Your task to perform on an android device: open app "PlayWell" (install if not already installed) Image 0: 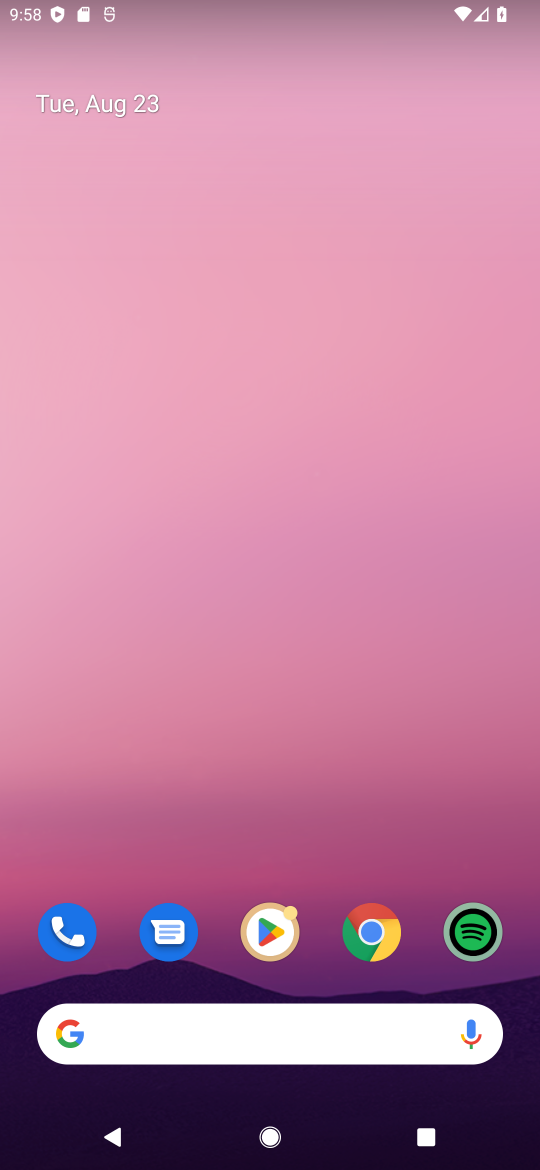
Step 0: click (273, 933)
Your task to perform on an android device: open app "PlayWell" (install if not already installed) Image 1: 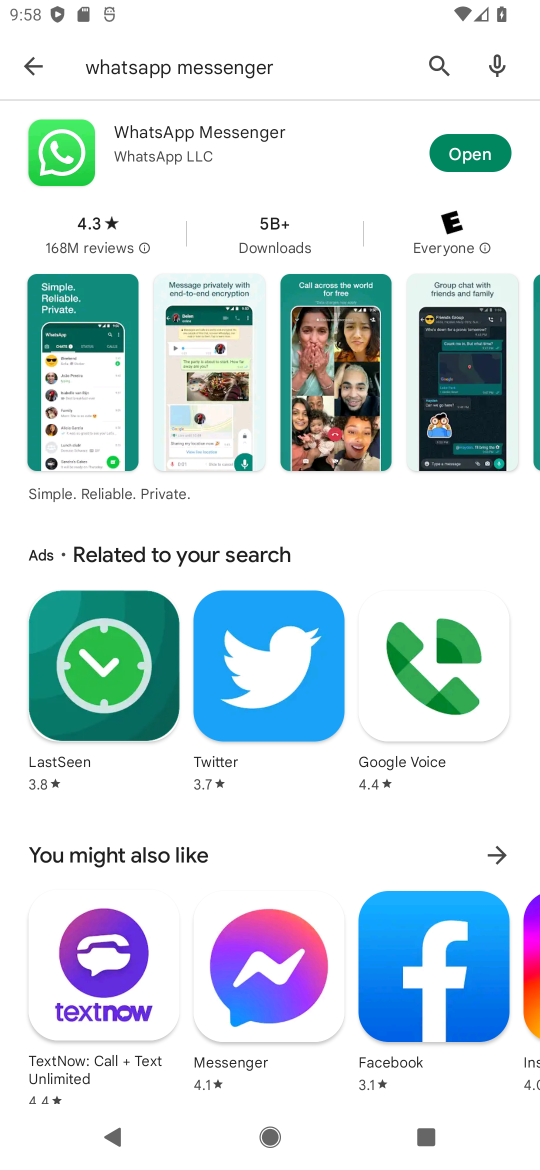
Step 1: click (419, 61)
Your task to perform on an android device: open app "PlayWell" (install if not already installed) Image 2: 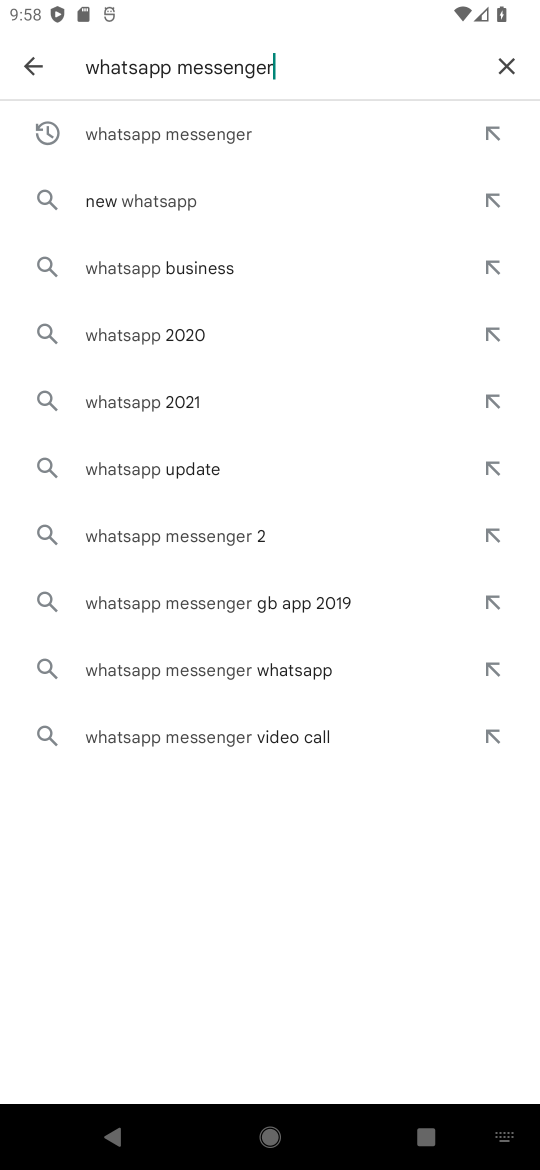
Step 2: click (519, 61)
Your task to perform on an android device: open app "PlayWell" (install if not already installed) Image 3: 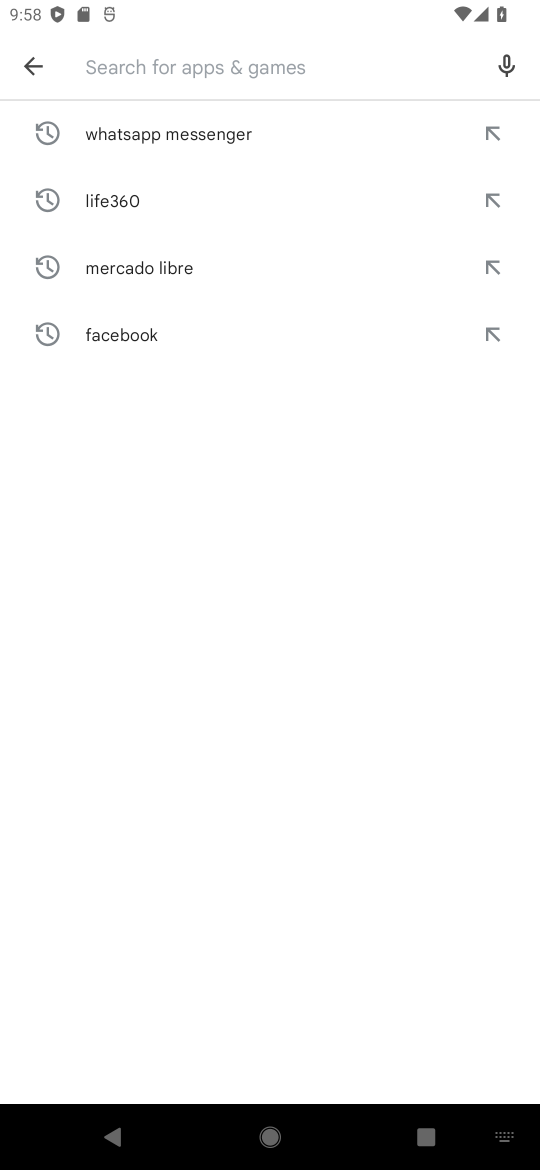
Step 3: click (83, 65)
Your task to perform on an android device: open app "PlayWell" (install if not already installed) Image 4: 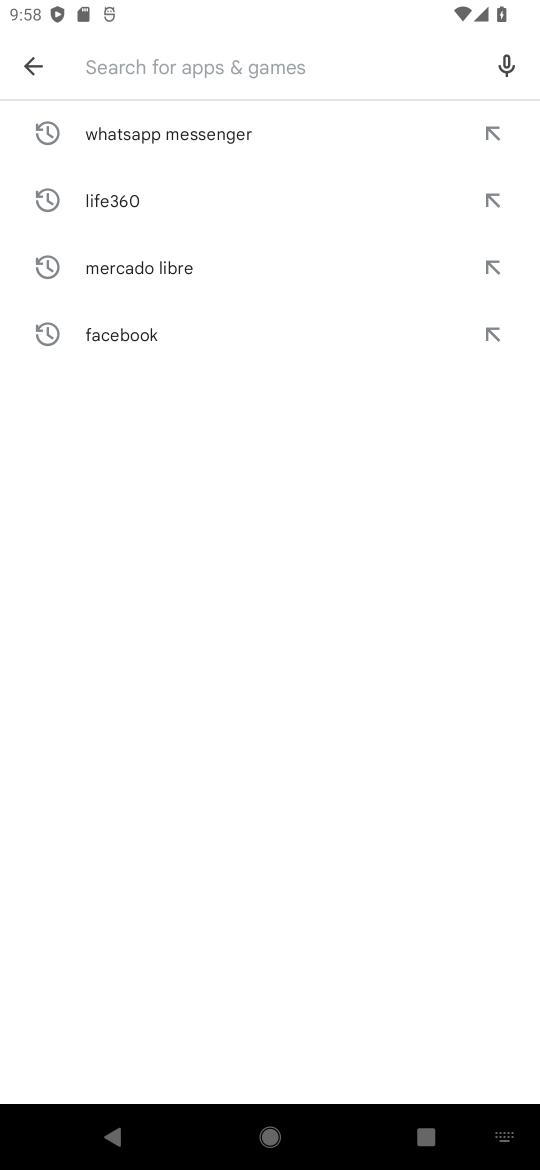
Step 4: type "PlayWell"
Your task to perform on an android device: open app "PlayWell" (install if not already installed) Image 5: 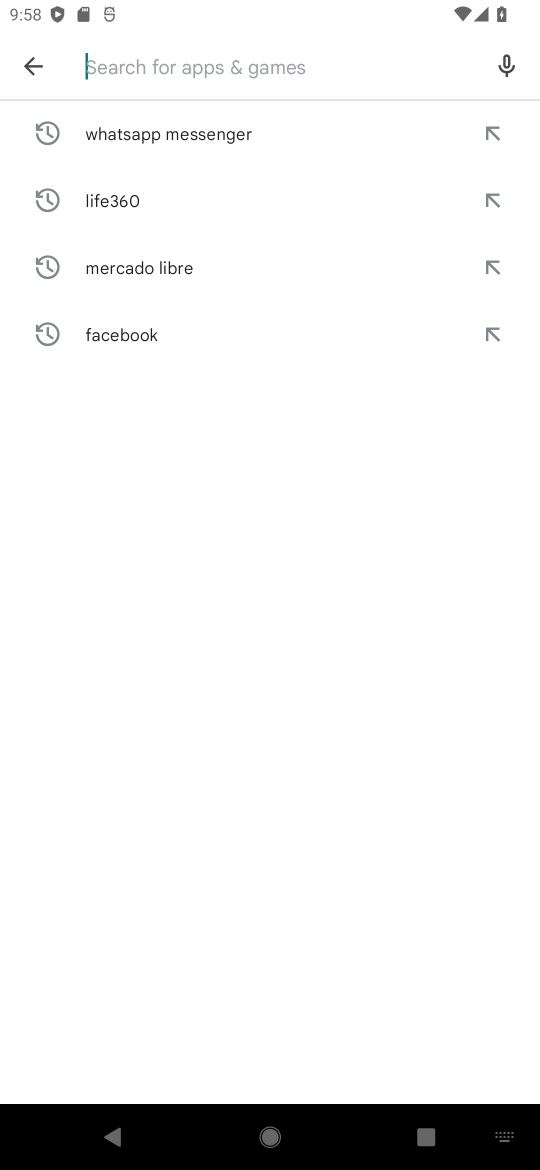
Step 5: click (299, 779)
Your task to perform on an android device: open app "PlayWell" (install if not already installed) Image 6: 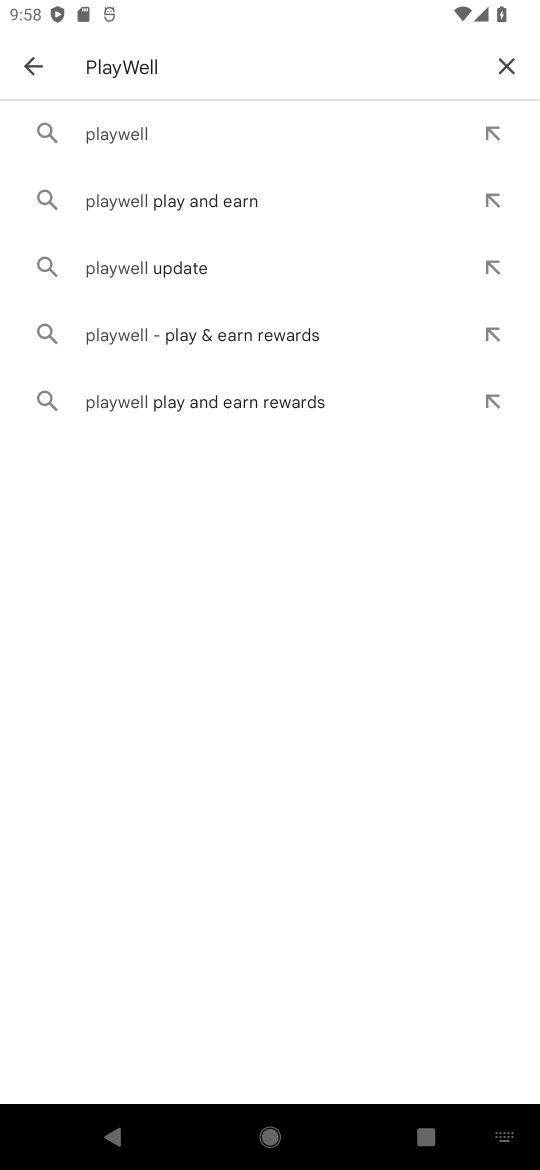
Step 6: click (200, 128)
Your task to perform on an android device: open app "PlayWell" (install if not already installed) Image 7: 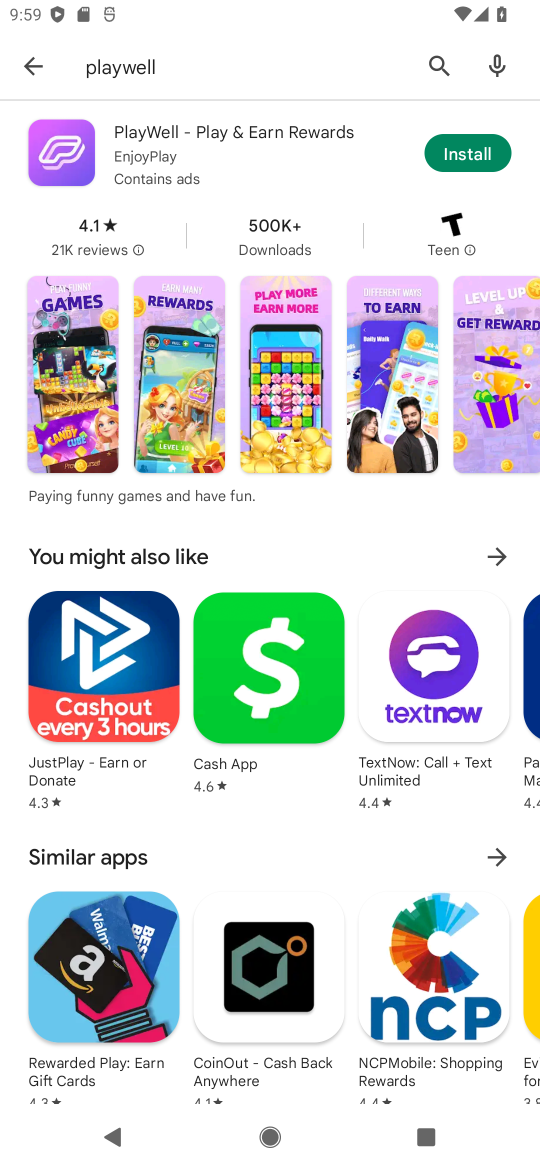
Step 7: click (479, 167)
Your task to perform on an android device: open app "PlayWell" (install if not already installed) Image 8: 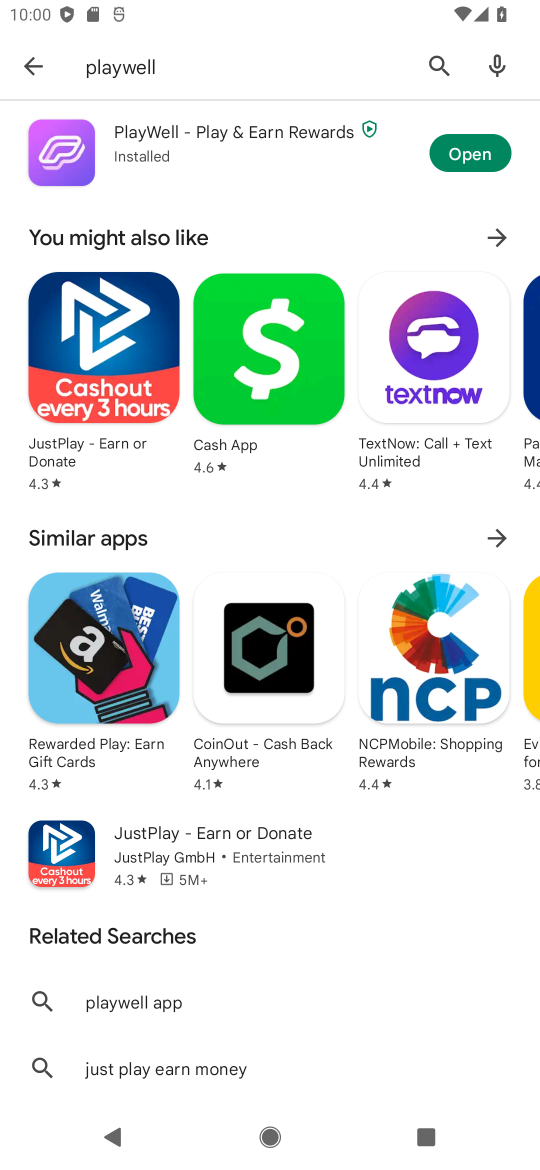
Step 8: click (484, 157)
Your task to perform on an android device: open app "PlayWell" (install if not already installed) Image 9: 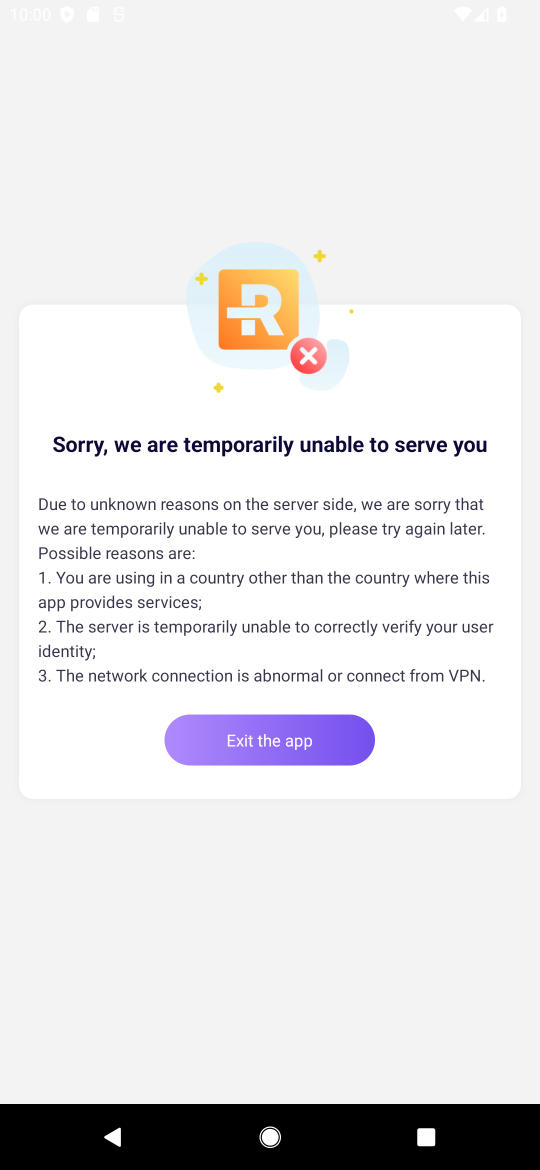
Step 9: task complete